Your task to perform on an android device: Search for macbook on walmart, select the first entry, and add it to the cart. Image 0: 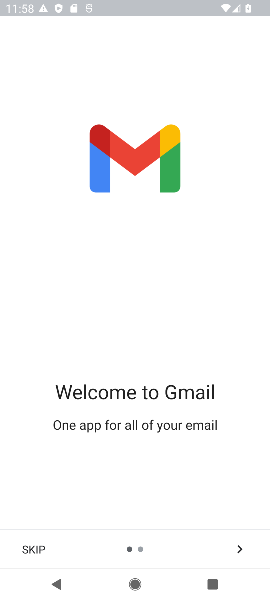
Step 0: click (30, 544)
Your task to perform on an android device: Search for macbook on walmart, select the first entry, and add it to the cart. Image 1: 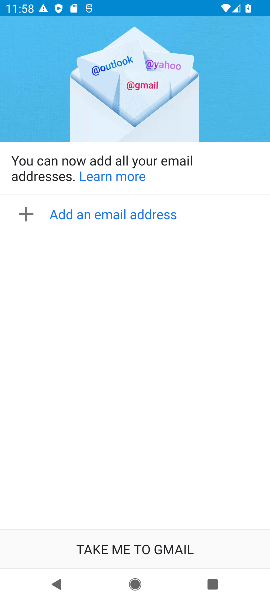
Step 1: task complete